Your task to perform on an android device: change the clock display to show seconds Image 0: 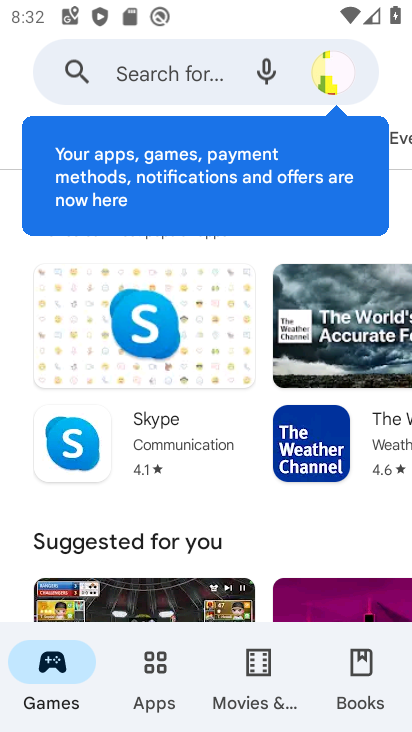
Step 0: press back button
Your task to perform on an android device: change the clock display to show seconds Image 1: 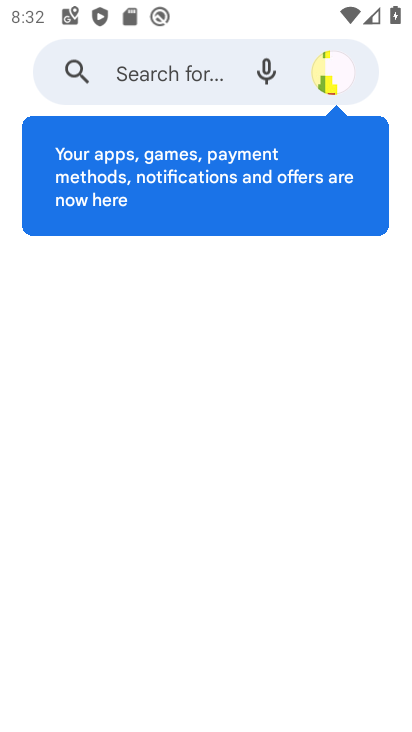
Step 1: press back button
Your task to perform on an android device: change the clock display to show seconds Image 2: 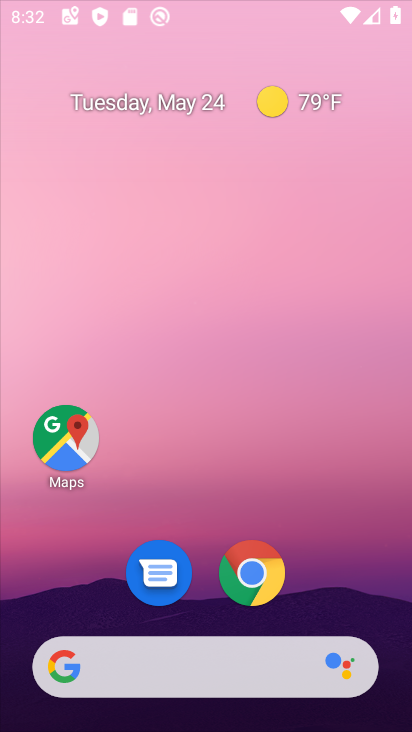
Step 2: press back button
Your task to perform on an android device: change the clock display to show seconds Image 3: 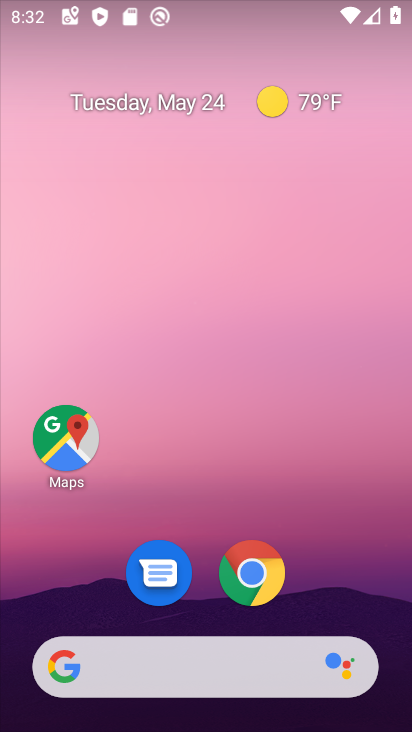
Step 3: drag from (355, 627) to (228, 82)
Your task to perform on an android device: change the clock display to show seconds Image 4: 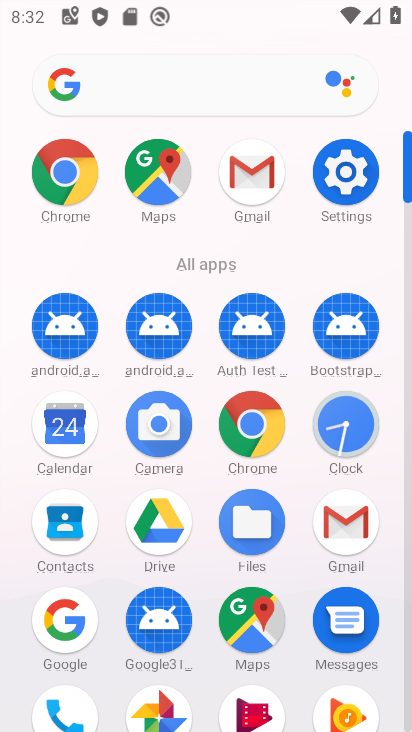
Step 4: click (336, 404)
Your task to perform on an android device: change the clock display to show seconds Image 5: 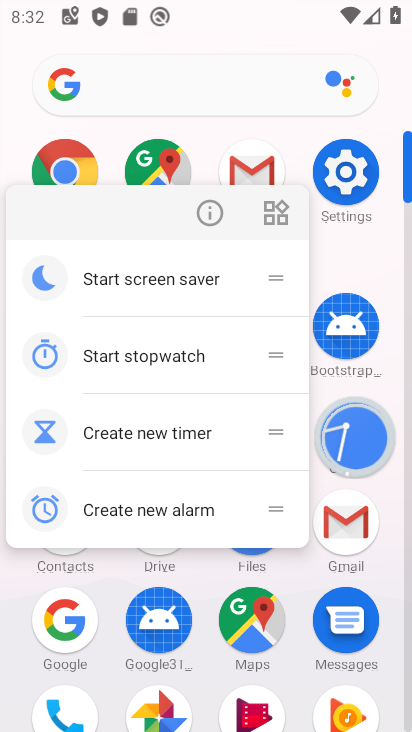
Step 5: click (347, 417)
Your task to perform on an android device: change the clock display to show seconds Image 6: 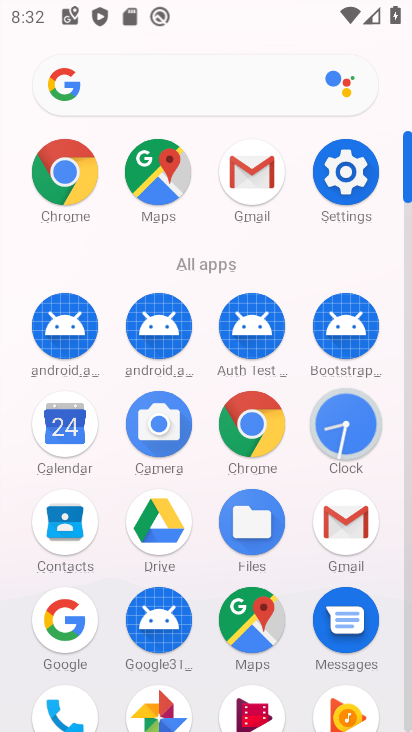
Step 6: click (348, 416)
Your task to perform on an android device: change the clock display to show seconds Image 7: 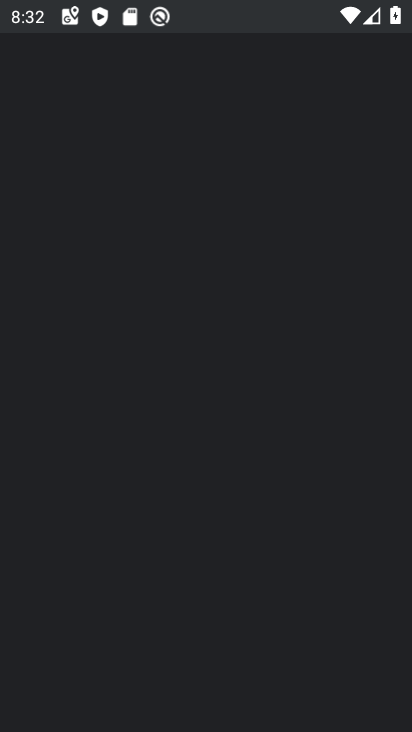
Step 7: click (346, 440)
Your task to perform on an android device: change the clock display to show seconds Image 8: 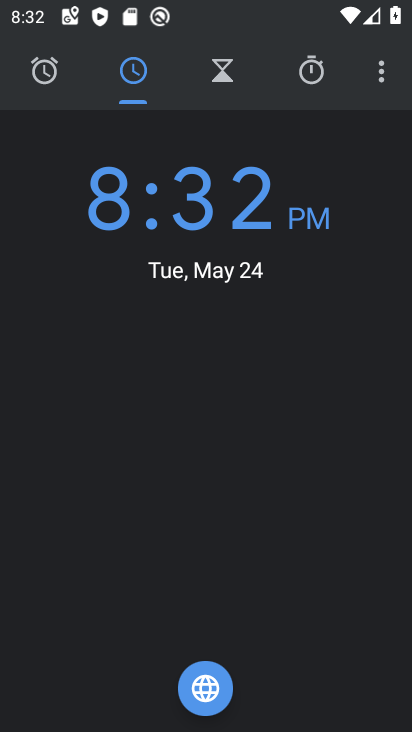
Step 8: click (381, 72)
Your task to perform on an android device: change the clock display to show seconds Image 9: 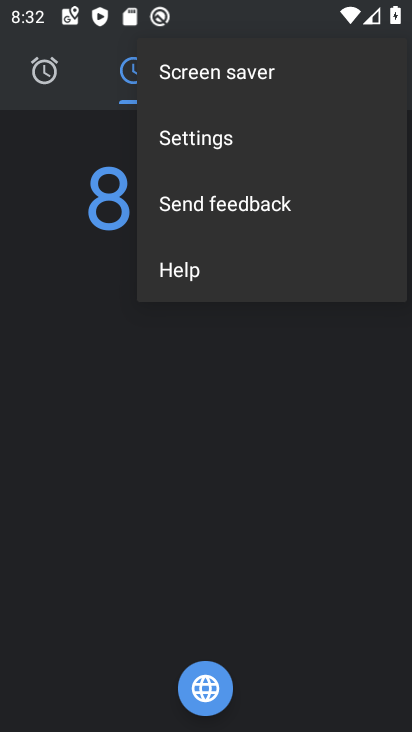
Step 9: click (150, 145)
Your task to perform on an android device: change the clock display to show seconds Image 10: 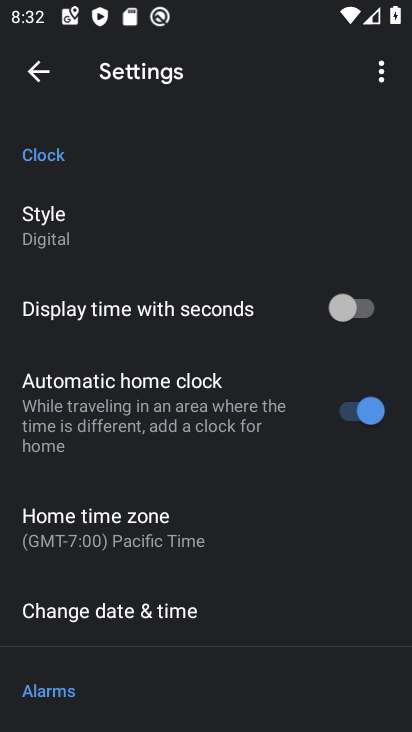
Step 10: click (340, 317)
Your task to perform on an android device: change the clock display to show seconds Image 11: 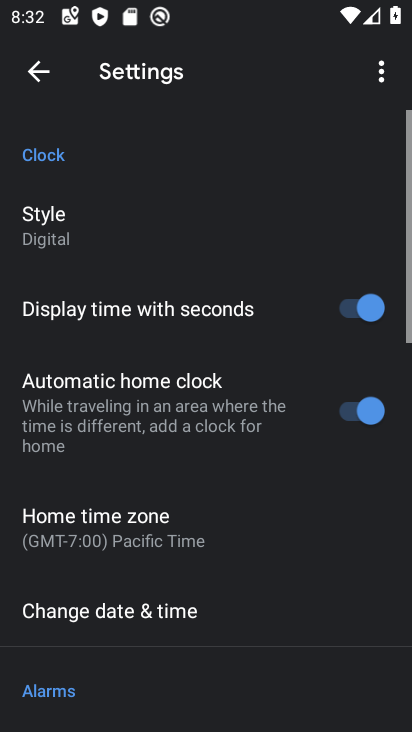
Step 11: task complete